Your task to perform on an android device: What's the weather? Image 0: 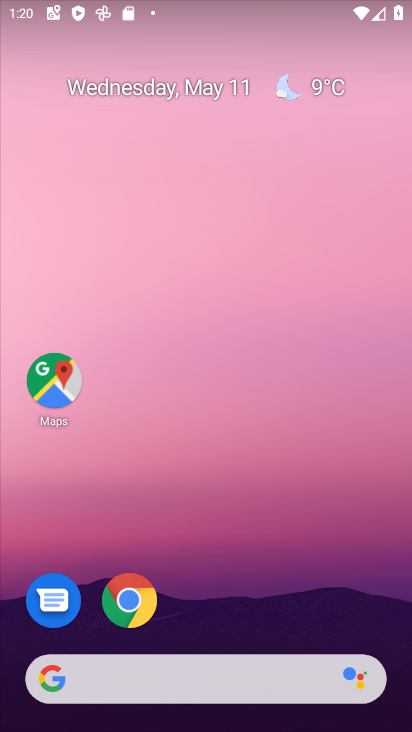
Step 0: click (160, 679)
Your task to perform on an android device: What's the weather? Image 1: 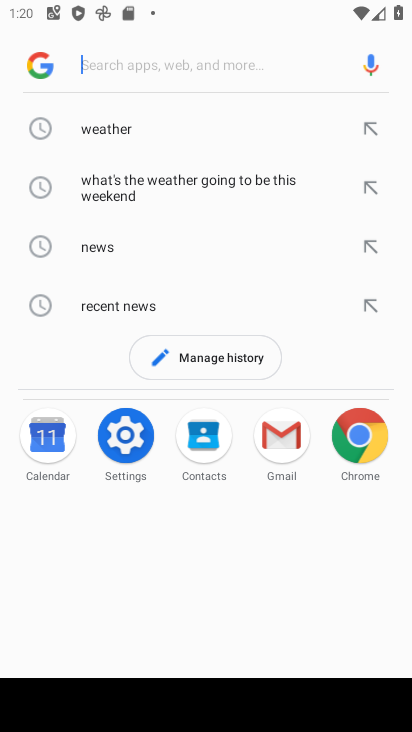
Step 1: type "What's the weather?"
Your task to perform on an android device: What's the weather? Image 2: 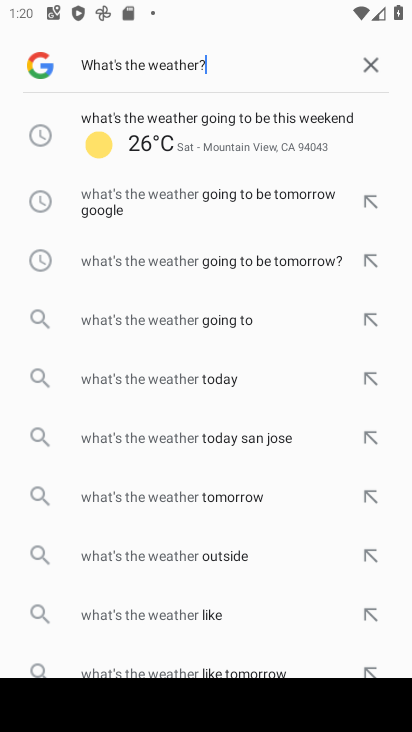
Step 2: click (315, 151)
Your task to perform on an android device: What's the weather? Image 3: 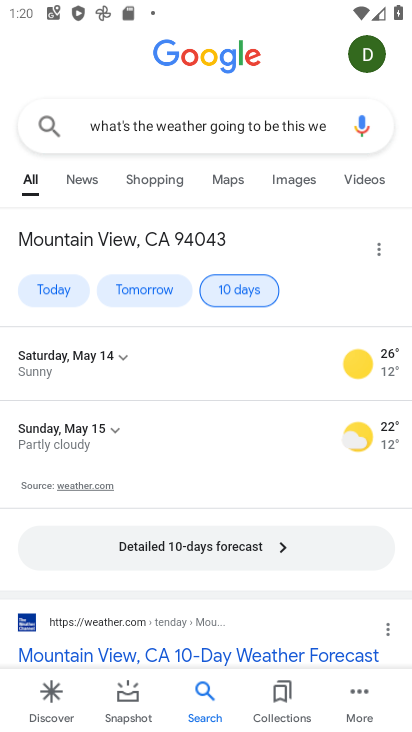
Step 3: task complete